Your task to perform on an android device: open device folders in google photos Image 0: 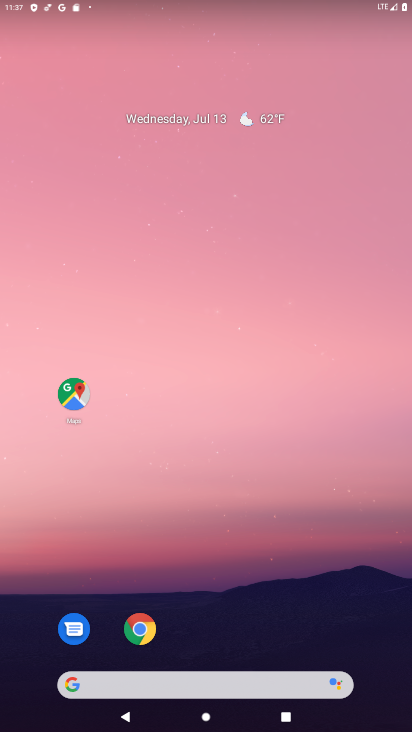
Step 0: drag from (239, 644) to (199, 38)
Your task to perform on an android device: open device folders in google photos Image 1: 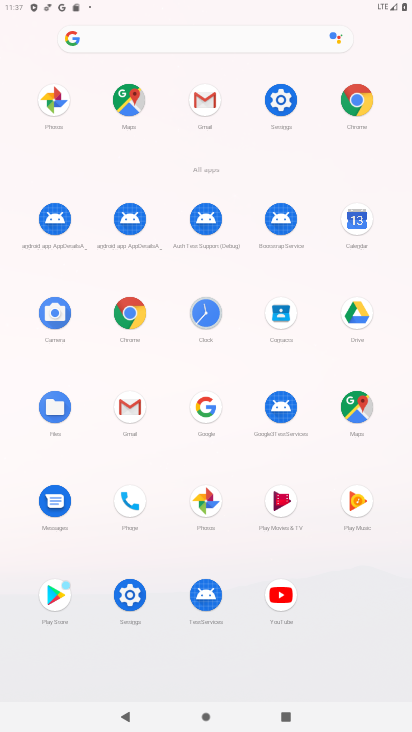
Step 1: click (51, 107)
Your task to perform on an android device: open device folders in google photos Image 2: 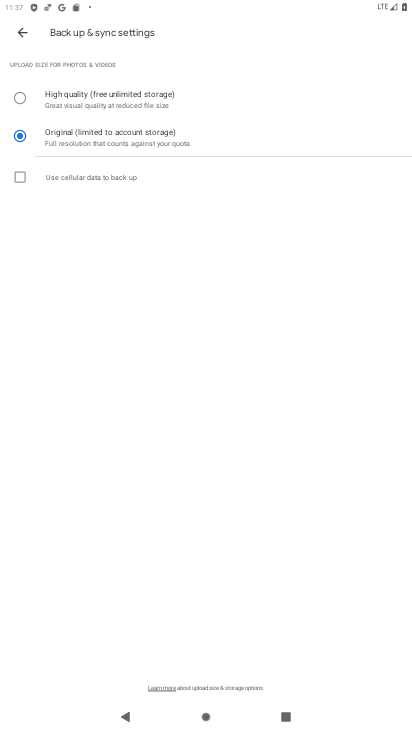
Step 2: click (26, 33)
Your task to perform on an android device: open device folders in google photos Image 3: 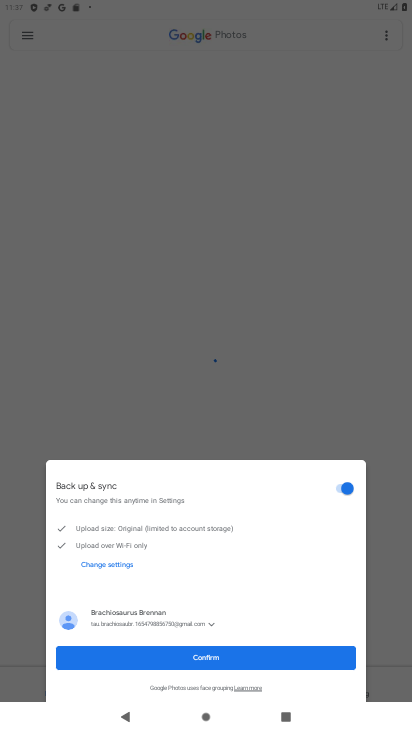
Step 3: click (317, 658)
Your task to perform on an android device: open device folders in google photos Image 4: 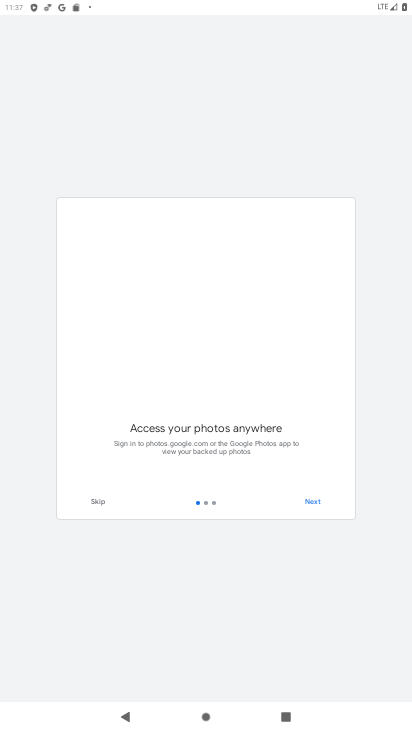
Step 4: click (315, 504)
Your task to perform on an android device: open device folders in google photos Image 5: 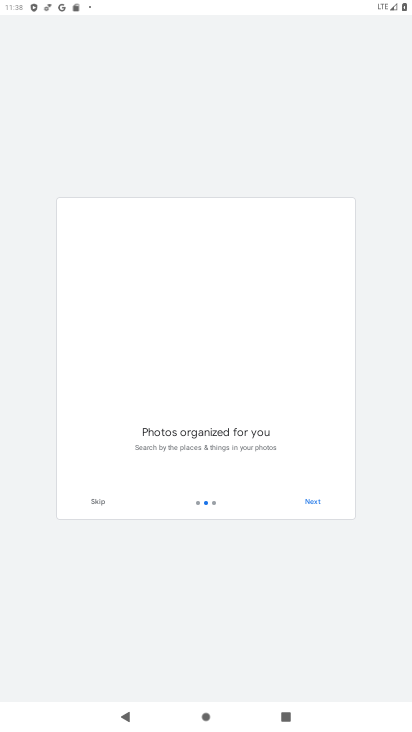
Step 5: click (311, 495)
Your task to perform on an android device: open device folders in google photos Image 6: 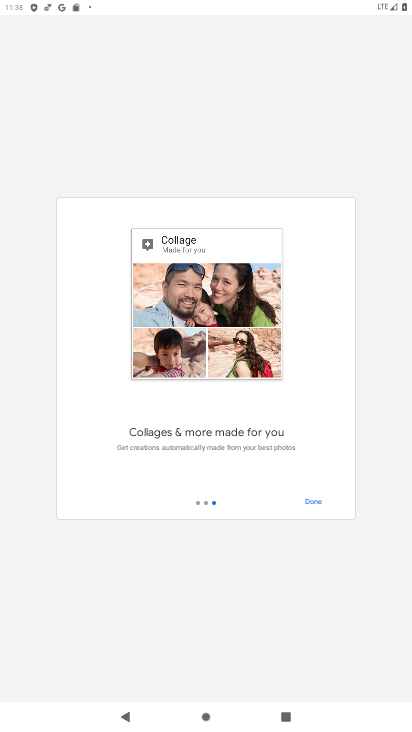
Step 6: click (314, 502)
Your task to perform on an android device: open device folders in google photos Image 7: 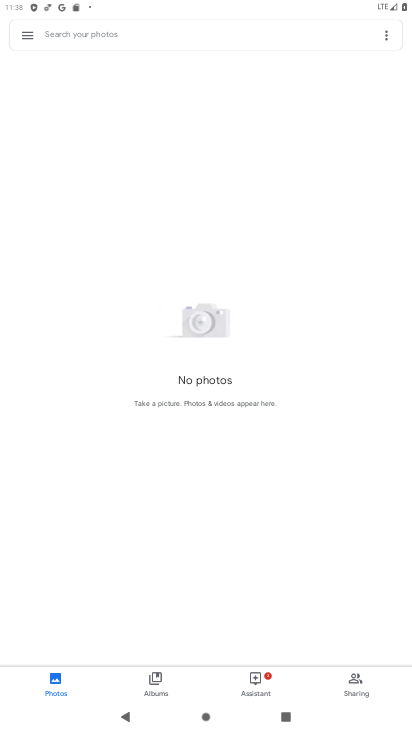
Step 7: click (27, 32)
Your task to perform on an android device: open device folders in google photos Image 8: 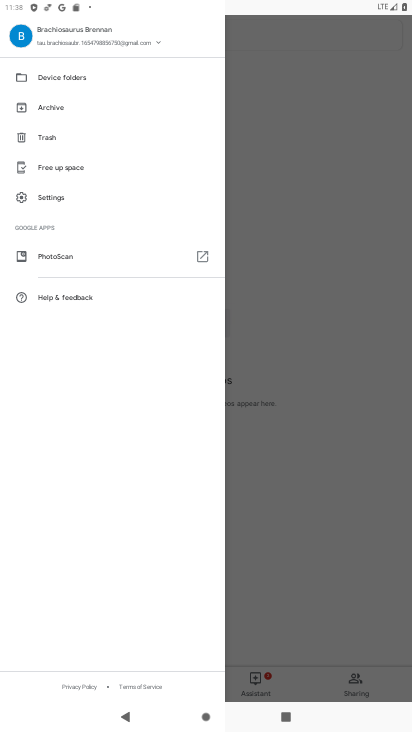
Step 8: click (78, 84)
Your task to perform on an android device: open device folders in google photos Image 9: 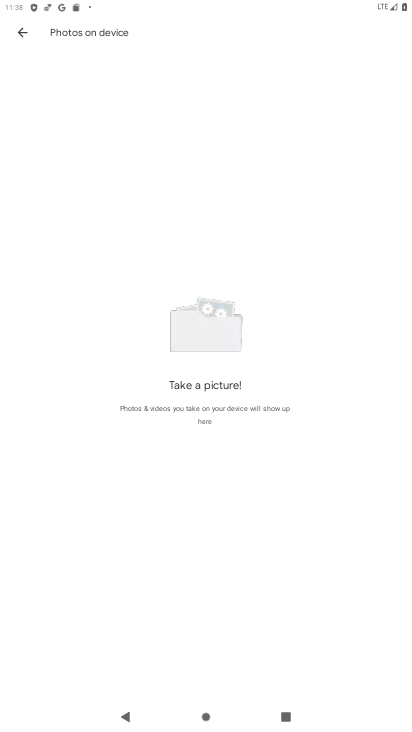
Step 9: task complete